Your task to perform on an android device: Go to ESPN.com Image 0: 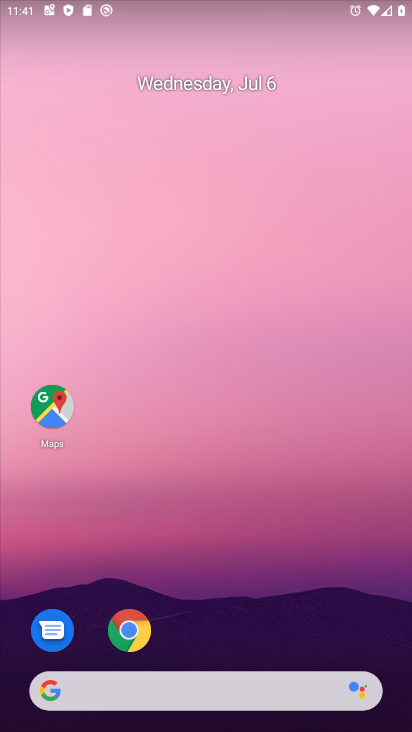
Step 0: drag from (240, 630) to (205, 173)
Your task to perform on an android device: Go to ESPN.com Image 1: 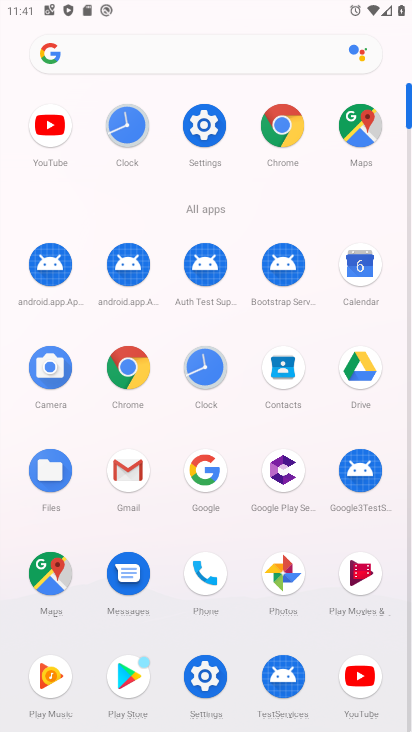
Step 1: click (287, 137)
Your task to perform on an android device: Go to ESPN.com Image 2: 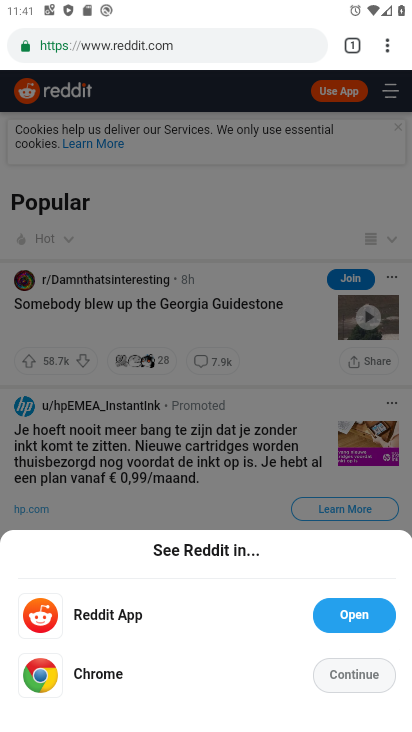
Step 2: click (201, 39)
Your task to perform on an android device: Go to ESPN.com Image 3: 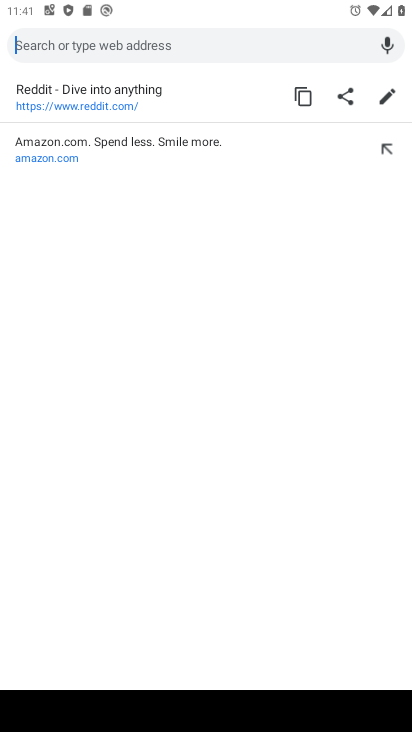
Step 3: type "espn.com"
Your task to perform on an android device: Go to ESPN.com Image 4: 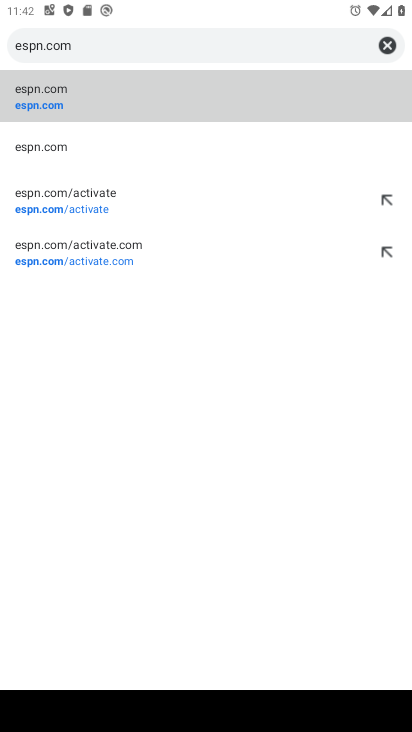
Step 4: click (52, 105)
Your task to perform on an android device: Go to ESPN.com Image 5: 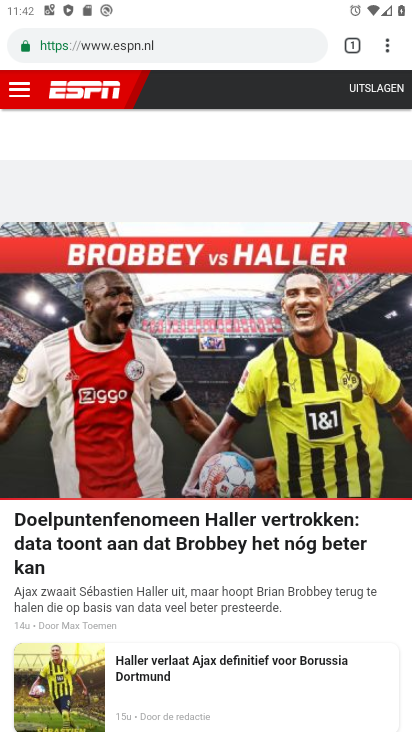
Step 5: task complete